Your task to perform on an android device: Open Google Chrome and click the shortcut for Amazon.com Image 0: 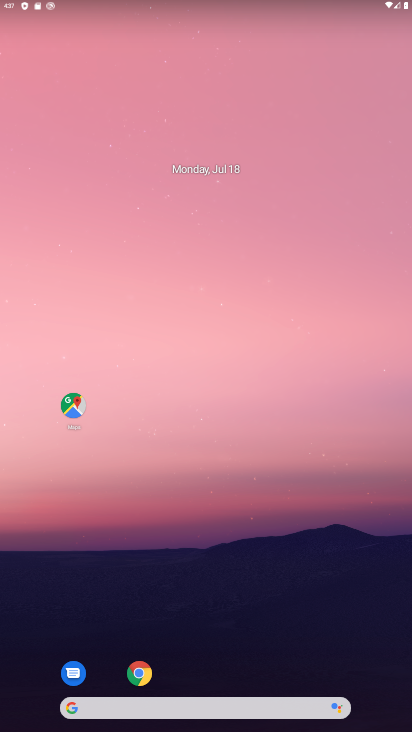
Step 0: click (298, 119)
Your task to perform on an android device: Open Google Chrome and click the shortcut for Amazon.com Image 1: 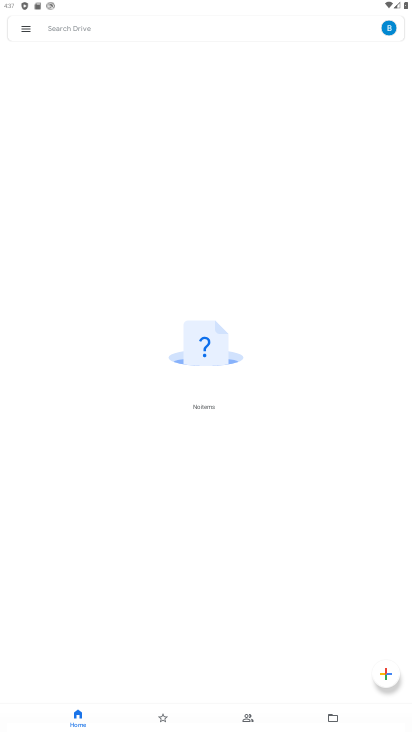
Step 1: press home button
Your task to perform on an android device: Open Google Chrome and click the shortcut for Amazon.com Image 2: 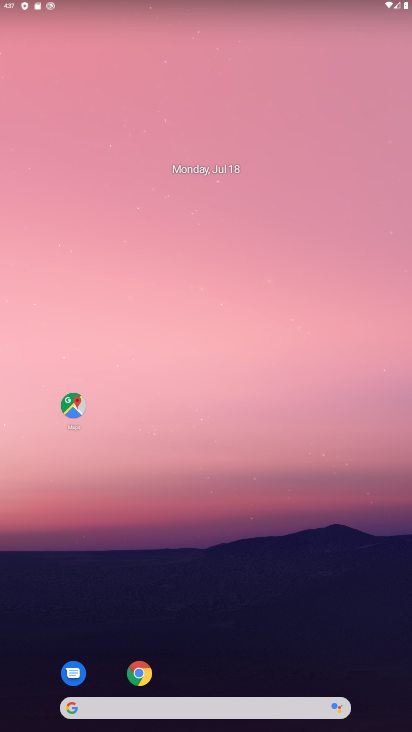
Step 2: drag from (227, 696) to (289, 117)
Your task to perform on an android device: Open Google Chrome and click the shortcut for Amazon.com Image 3: 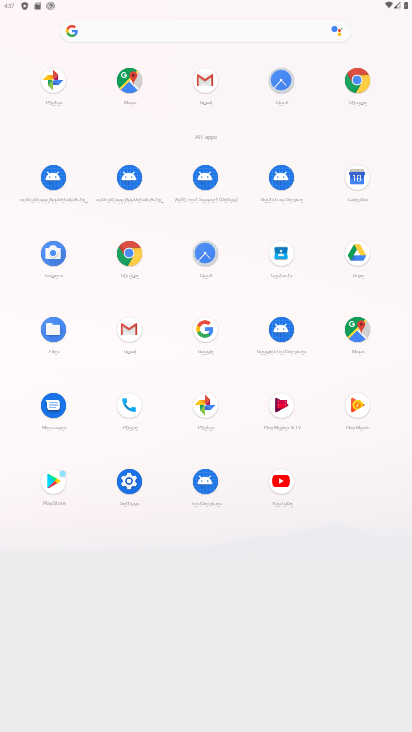
Step 3: click (120, 252)
Your task to perform on an android device: Open Google Chrome and click the shortcut for Amazon.com Image 4: 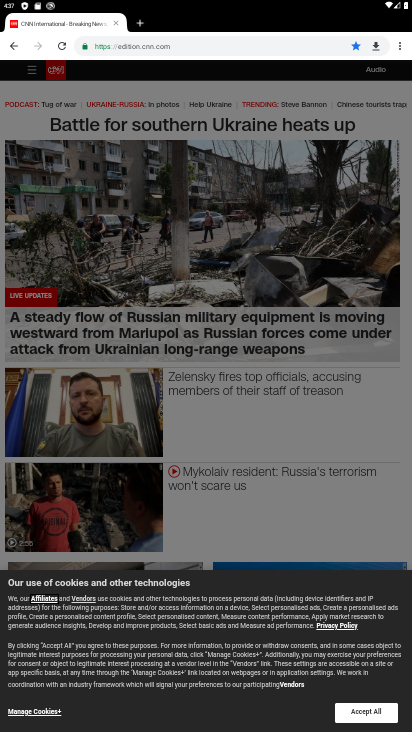
Step 4: click (403, 46)
Your task to perform on an android device: Open Google Chrome and click the shortcut for Amazon.com Image 5: 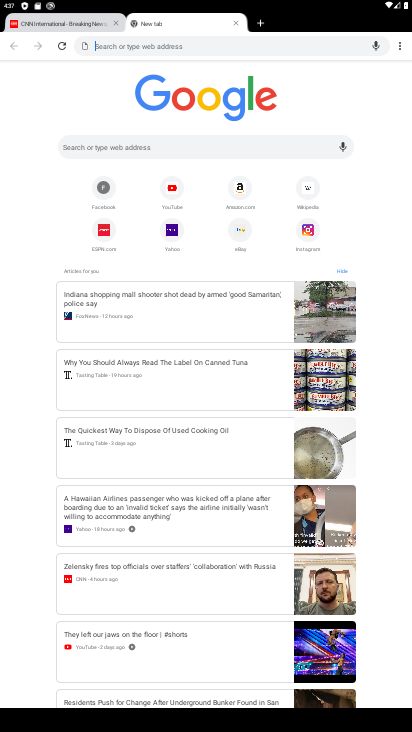
Step 5: click (242, 190)
Your task to perform on an android device: Open Google Chrome and click the shortcut for Amazon.com Image 6: 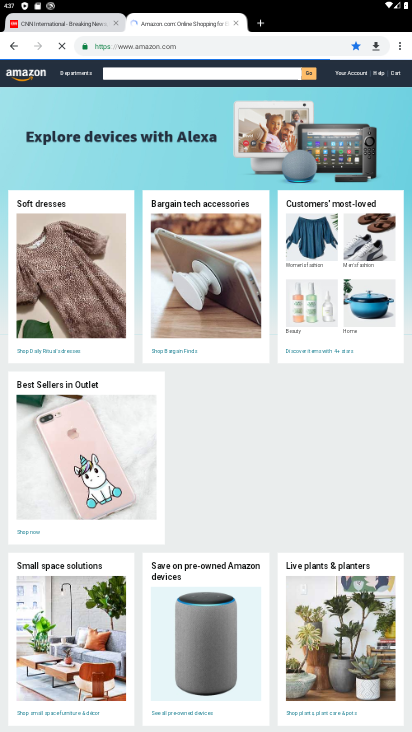
Step 6: task complete